Your task to perform on an android device: remove spam from my inbox in the gmail app Image 0: 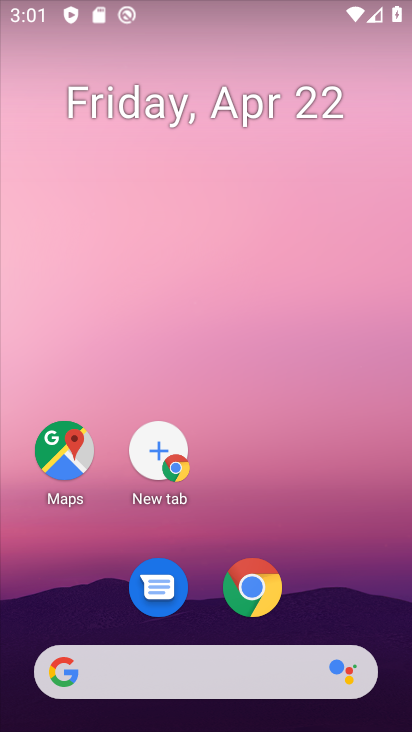
Step 0: drag from (220, 635) to (163, 210)
Your task to perform on an android device: remove spam from my inbox in the gmail app Image 1: 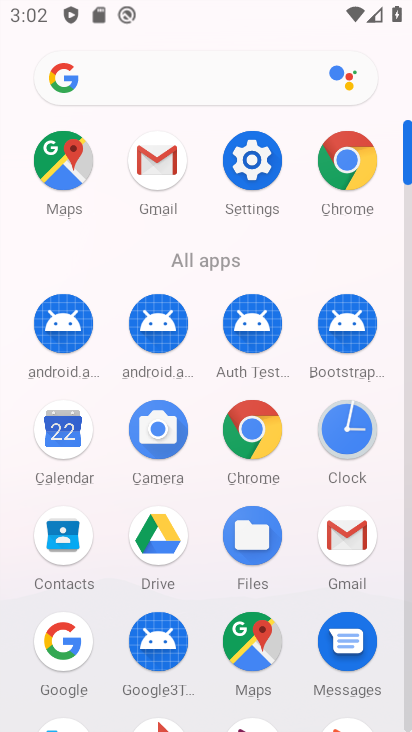
Step 1: click (161, 174)
Your task to perform on an android device: remove spam from my inbox in the gmail app Image 2: 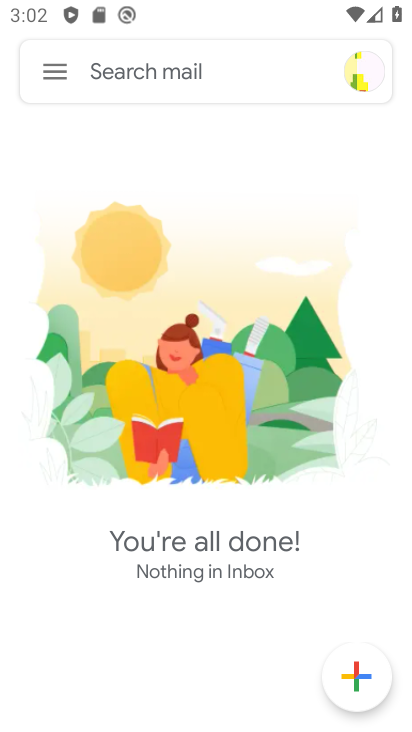
Step 2: click (56, 71)
Your task to perform on an android device: remove spam from my inbox in the gmail app Image 3: 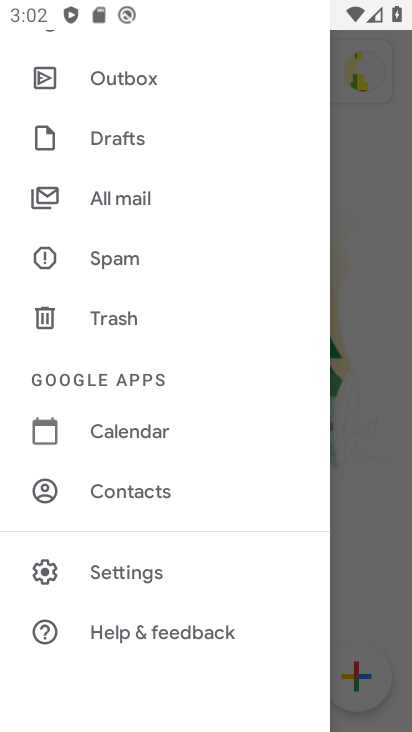
Step 3: click (120, 273)
Your task to perform on an android device: remove spam from my inbox in the gmail app Image 4: 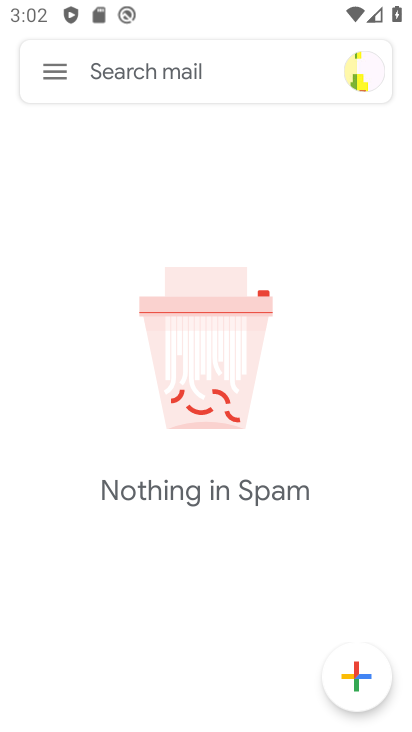
Step 4: task complete